Your task to perform on an android device: open sync settings in chrome Image 0: 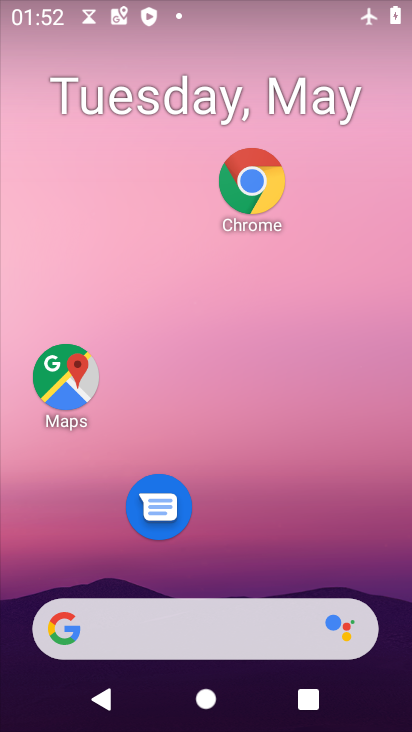
Step 0: click (261, 172)
Your task to perform on an android device: open sync settings in chrome Image 1: 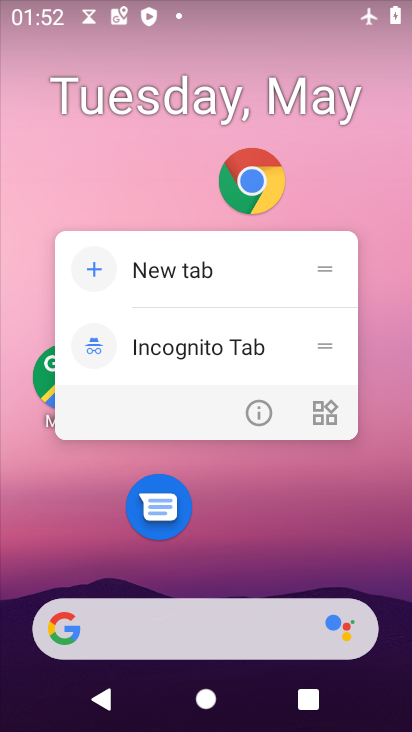
Step 1: click (246, 179)
Your task to perform on an android device: open sync settings in chrome Image 2: 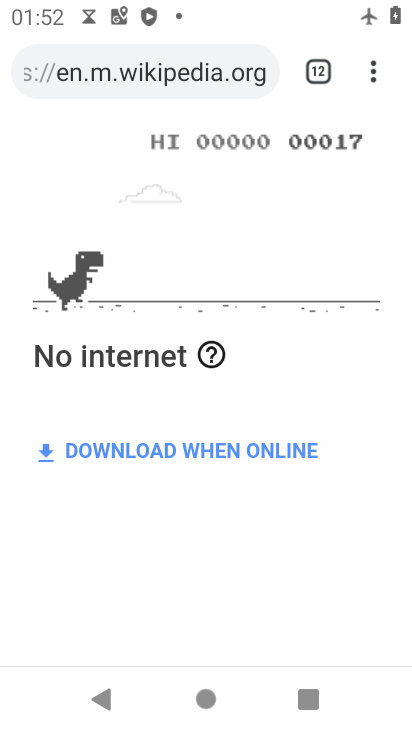
Step 2: click (364, 72)
Your task to perform on an android device: open sync settings in chrome Image 3: 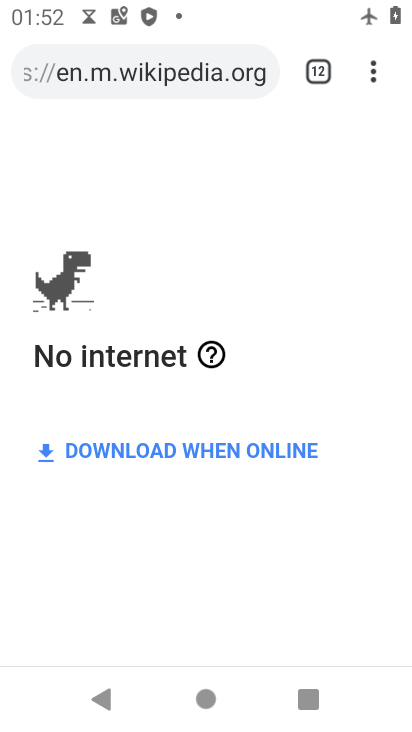
Step 3: click (381, 64)
Your task to perform on an android device: open sync settings in chrome Image 4: 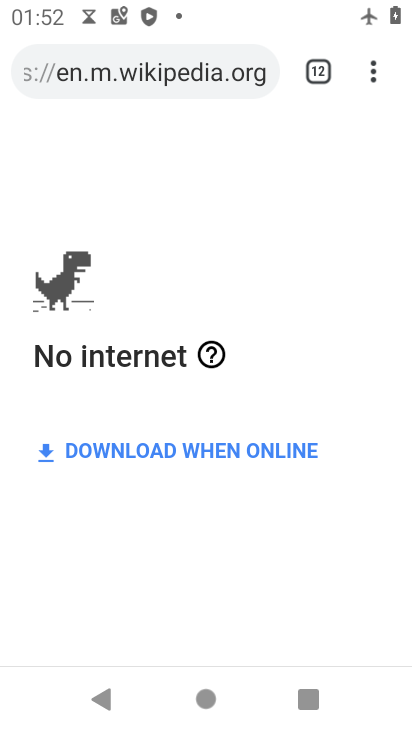
Step 4: click (372, 71)
Your task to perform on an android device: open sync settings in chrome Image 5: 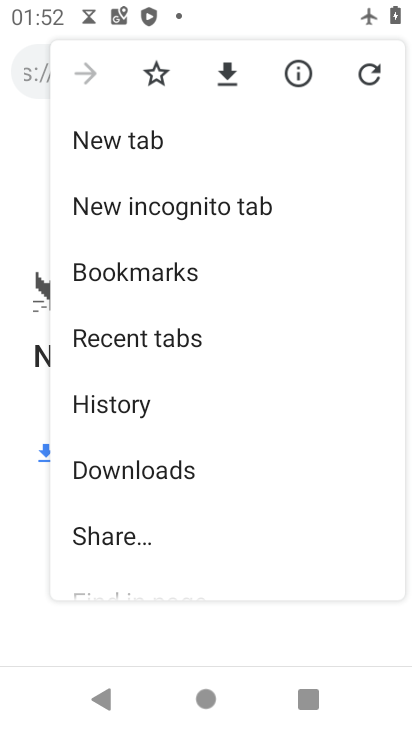
Step 5: click (185, 142)
Your task to perform on an android device: open sync settings in chrome Image 6: 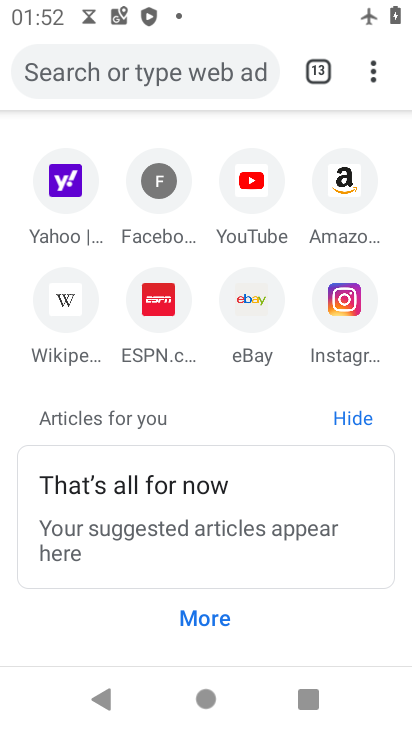
Step 6: click (388, 74)
Your task to perform on an android device: open sync settings in chrome Image 7: 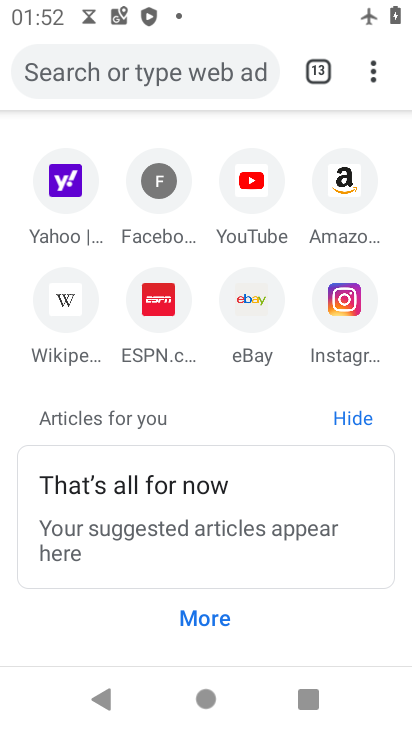
Step 7: click (377, 67)
Your task to perform on an android device: open sync settings in chrome Image 8: 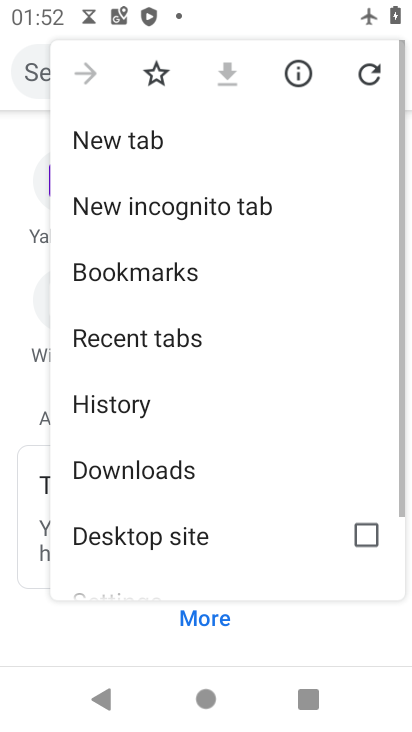
Step 8: drag from (207, 500) to (233, 187)
Your task to perform on an android device: open sync settings in chrome Image 9: 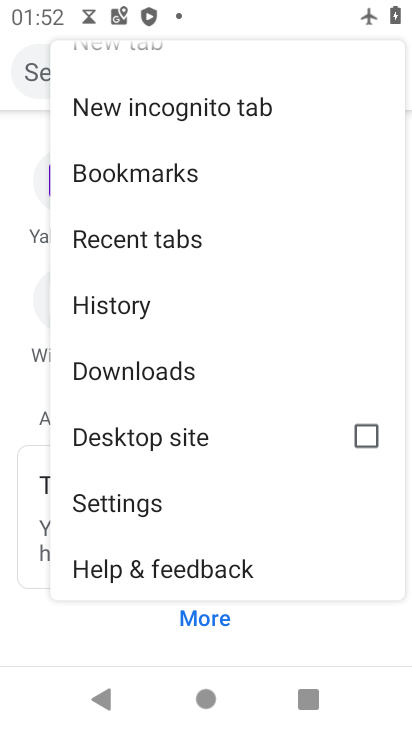
Step 9: click (182, 493)
Your task to perform on an android device: open sync settings in chrome Image 10: 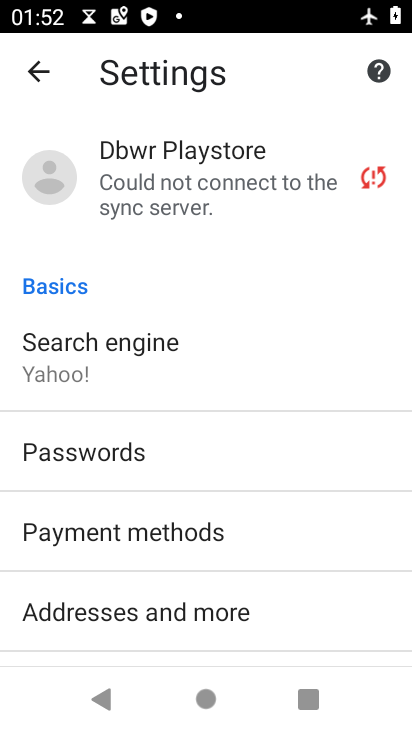
Step 10: click (205, 158)
Your task to perform on an android device: open sync settings in chrome Image 11: 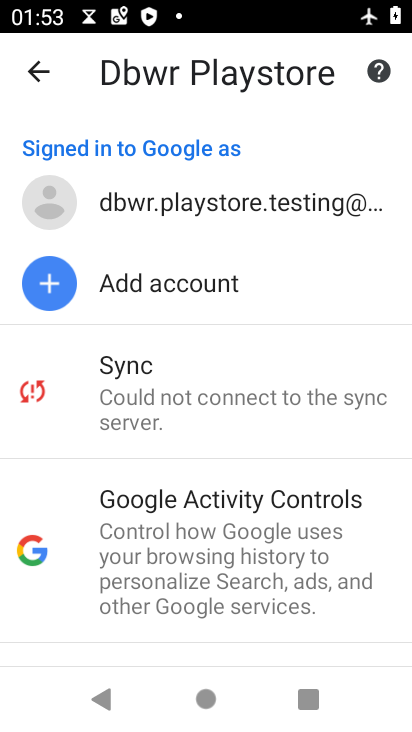
Step 11: task complete